Your task to perform on an android device: Show me popular videos on Youtube Image 0: 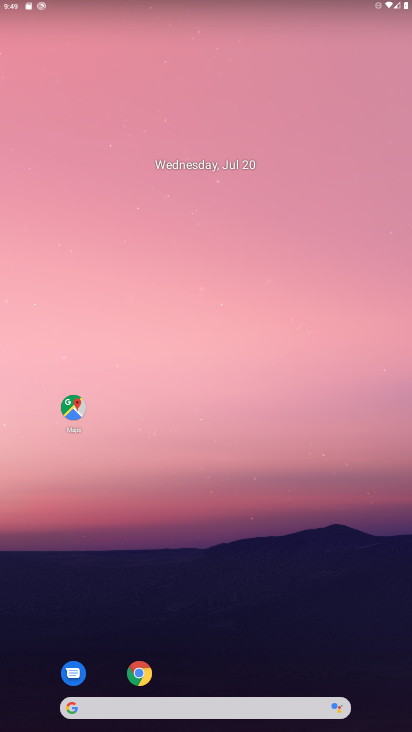
Step 0: drag from (179, 678) to (248, 41)
Your task to perform on an android device: Show me popular videos on Youtube Image 1: 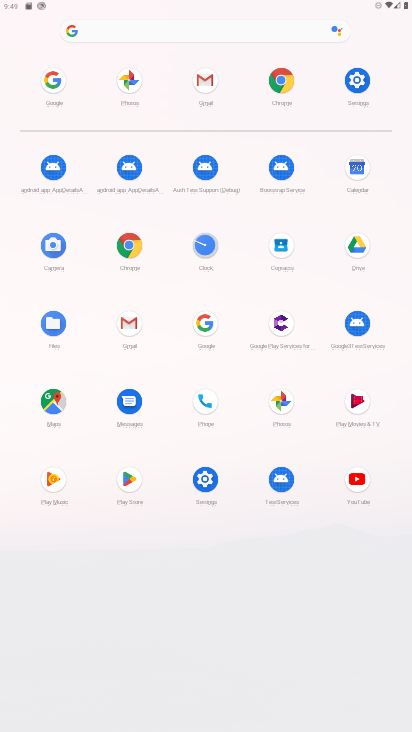
Step 1: click (365, 484)
Your task to perform on an android device: Show me popular videos on Youtube Image 2: 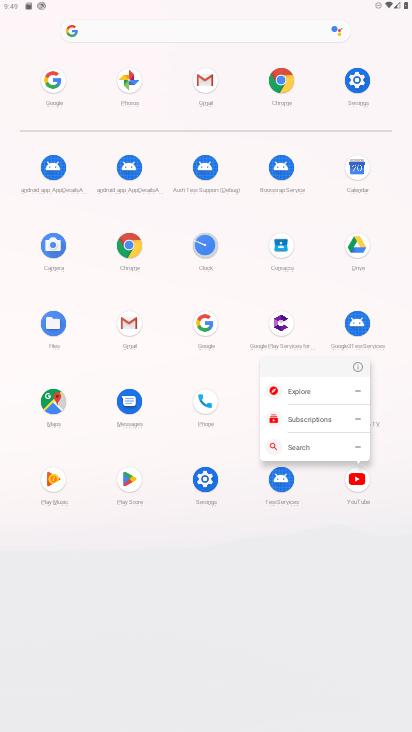
Step 2: click (354, 365)
Your task to perform on an android device: Show me popular videos on Youtube Image 3: 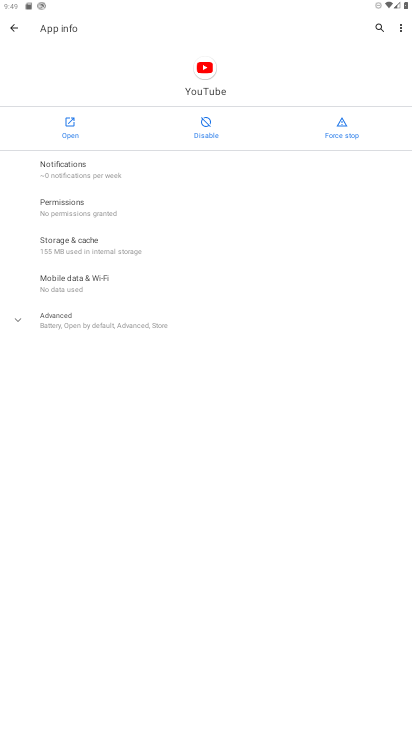
Step 3: click (74, 124)
Your task to perform on an android device: Show me popular videos on Youtube Image 4: 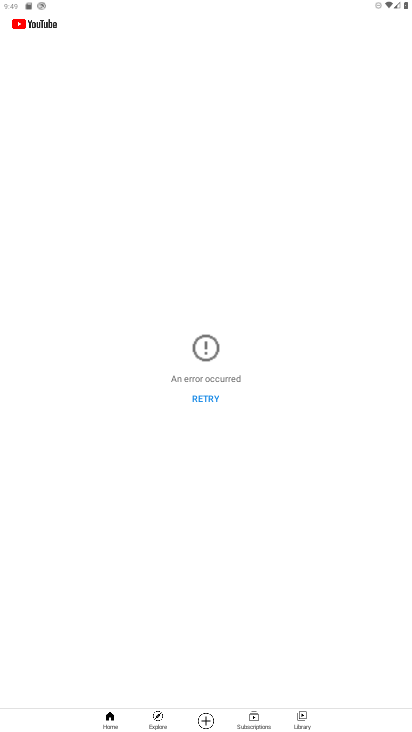
Step 4: task complete